Your task to perform on an android device: Open settings Image 0: 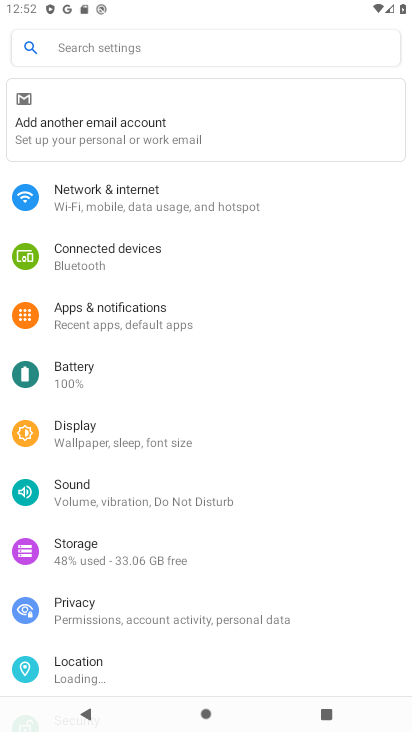
Step 0: press home button
Your task to perform on an android device: Open settings Image 1: 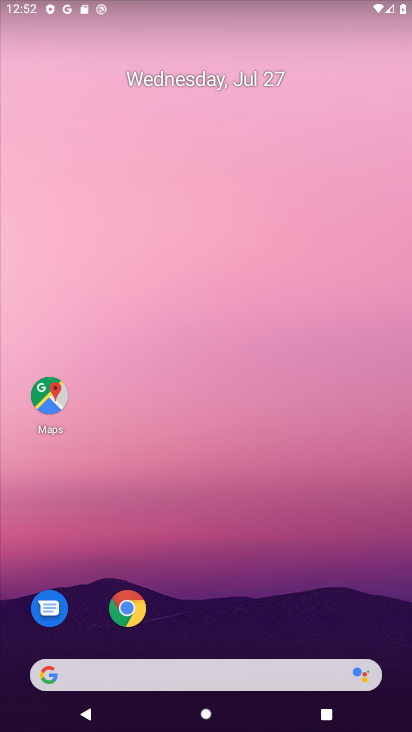
Step 1: drag from (178, 211) to (202, 23)
Your task to perform on an android device: Open settings Image 2: 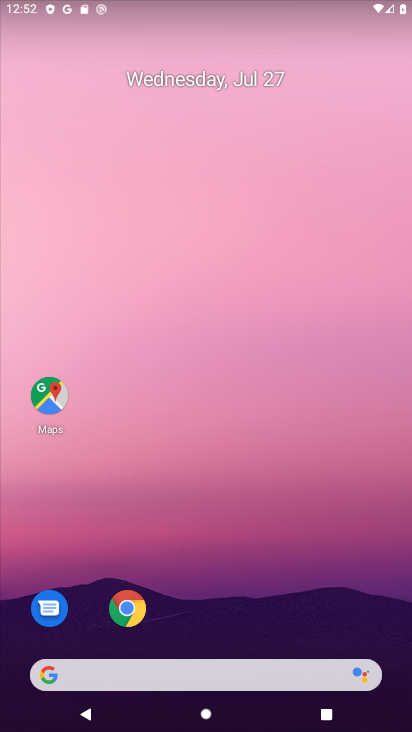
Step 2: drag from (194, 503) to (193, 157)
Your task to perform on an android device: Open settings Image 3: 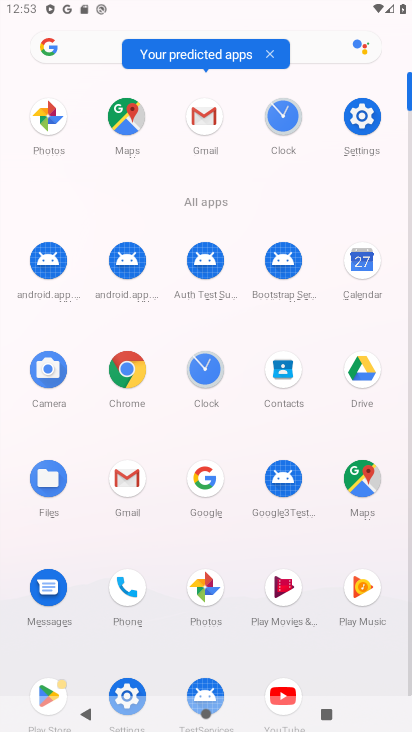
Step 3: click (126, 680)
Your task to perform on an android device: Open settings Image 4: 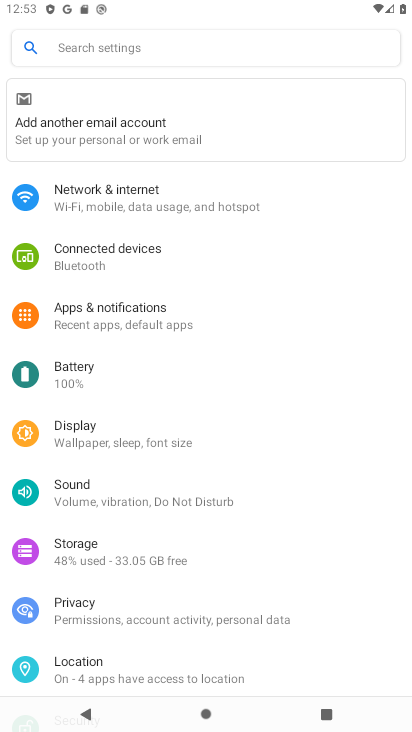
Step 4: task complete